Your task to perform on an android device: change the clock display to show seconds Image 0: 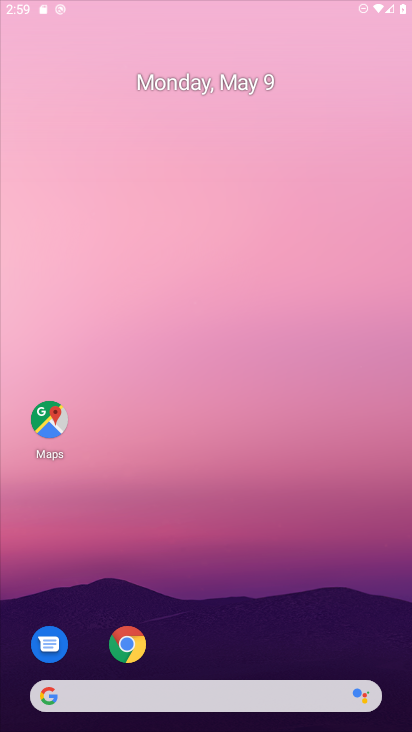
Step 0: drag from (256, 626) to (317, 14)
Your task to perform on an android device: change the clock display to show seconds Image 1: 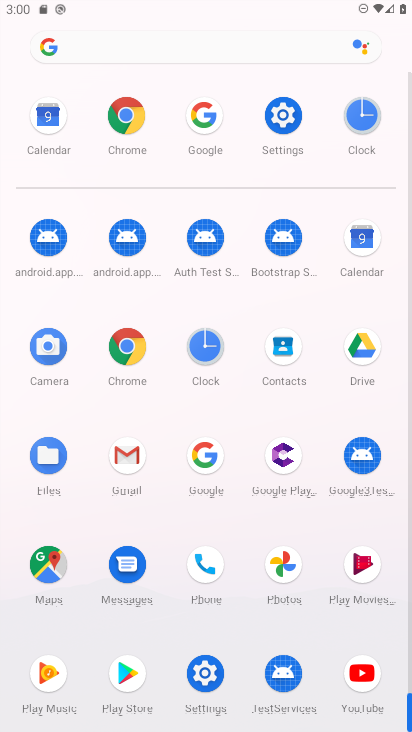
Step 1: drag from (265, 516) to (263, 154)
Your task to perform on an android device: change the clock display to show seconds Image 2: 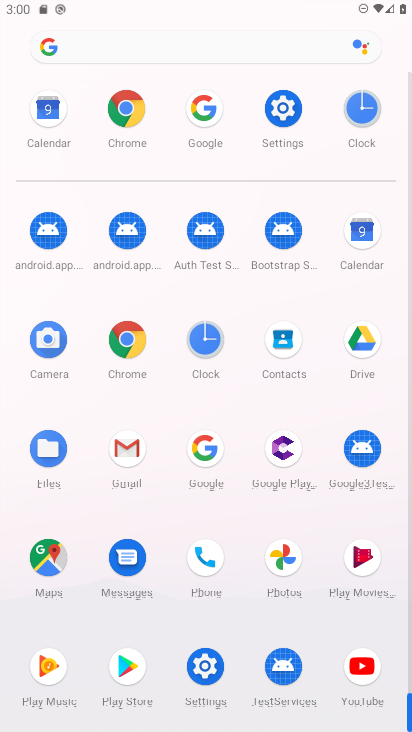
Step 2: click (211, 373)
Your task to perform on an android device: change the clock display to show seconds Image 3: 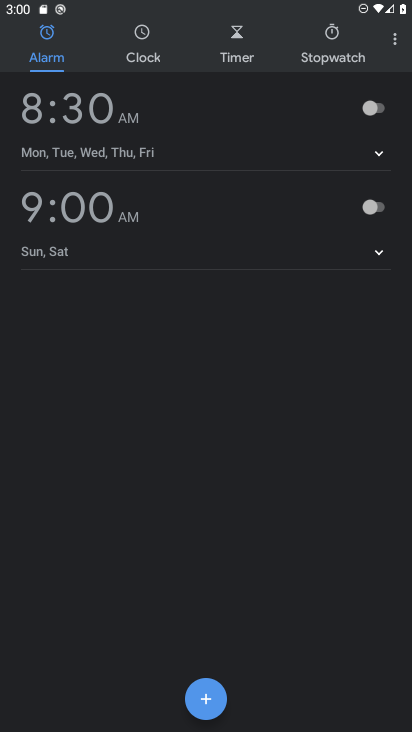
Step 3: click (395, 49)
Your task to perform on an android device: change the clock display to show seconds Image 4: 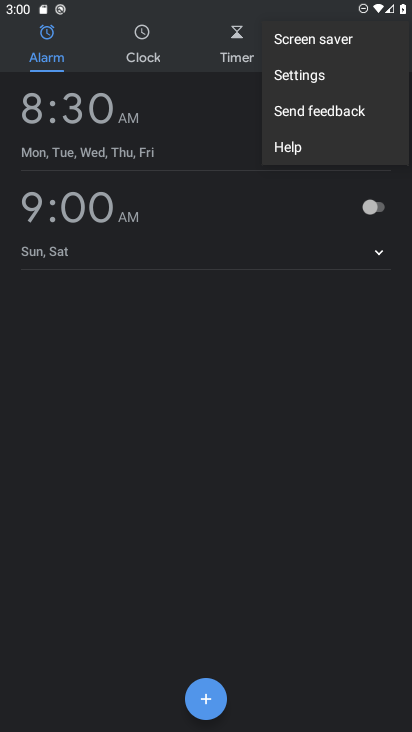
Step 4: click (317, 78)
Your task to perform on an android device: change the clock display to show seconds Image 5: 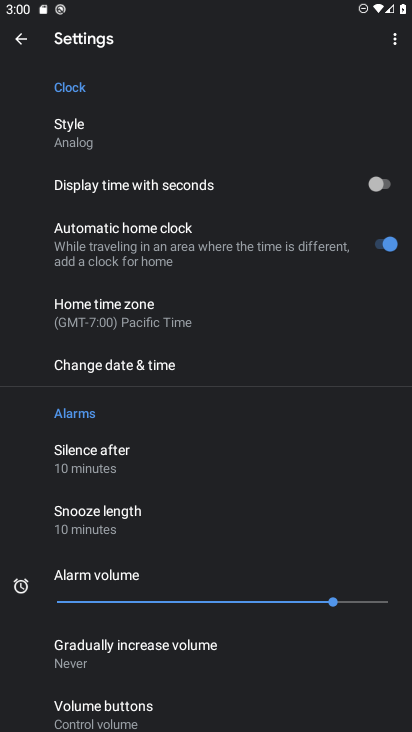
Step 5: drag from (220, 579) to (240, 100)
Your task to perform on an android device: change the clock display to show seconds Image 6: 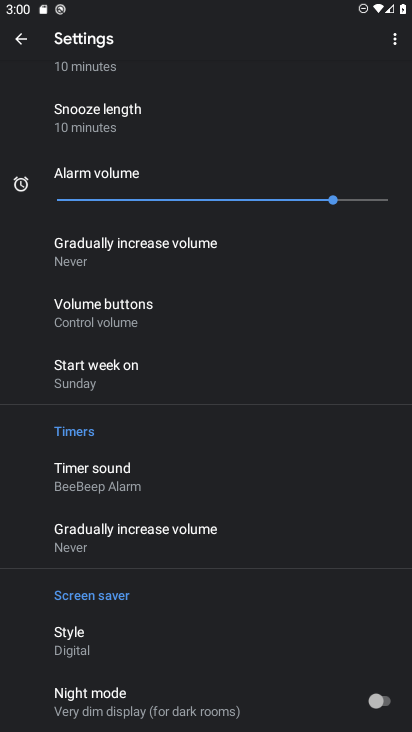
Step 6: drag from (249, 136) to (209, 648)
Your task to perform on an android device: change the clock display to show seconds Image 7: 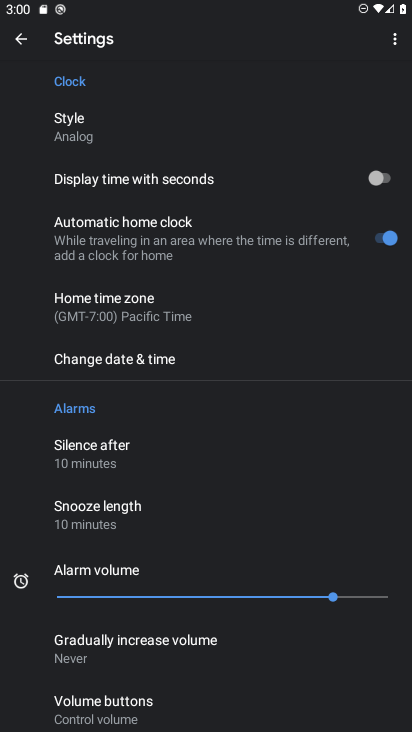
Step 7: click (384, 172)
Your task to perform on an android device: change the clock display to show seconds Image 8: 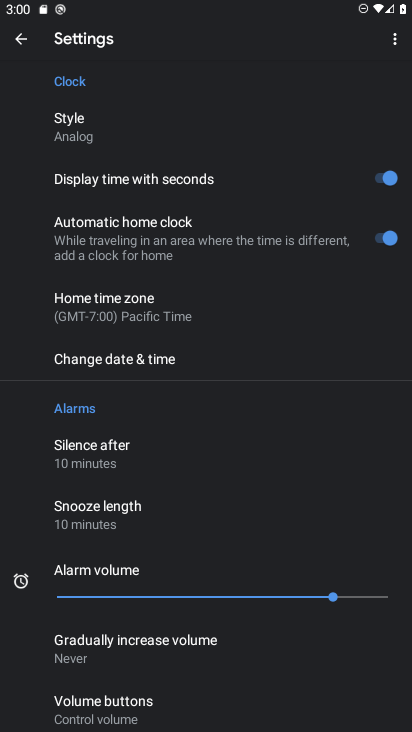
Step 8: task complete